Your task to perform on an android device: open sync settings in chrome Image 0: 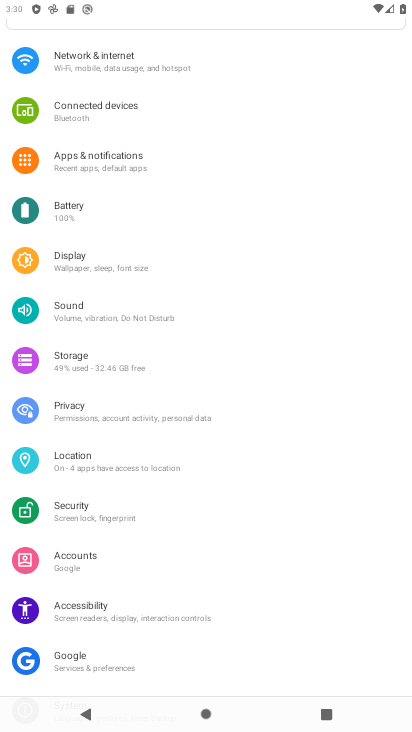
Step 0: press home button
Your task to perform on an android device: open sync settings in chrome Image 1: 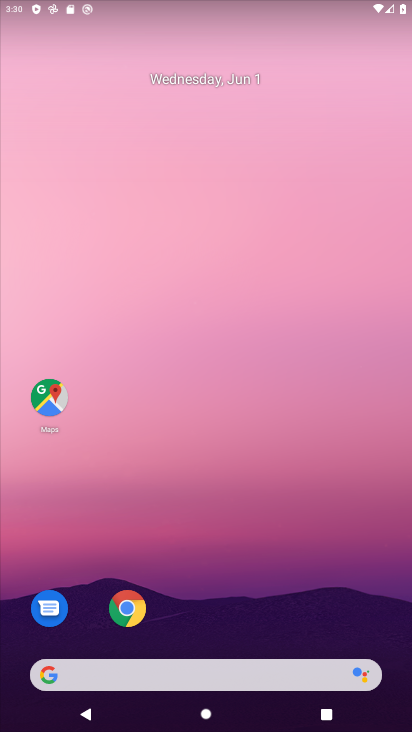
Step 1: click (126, 617)
Your task to perform on an android device: open sync settings in chrome Image 2: 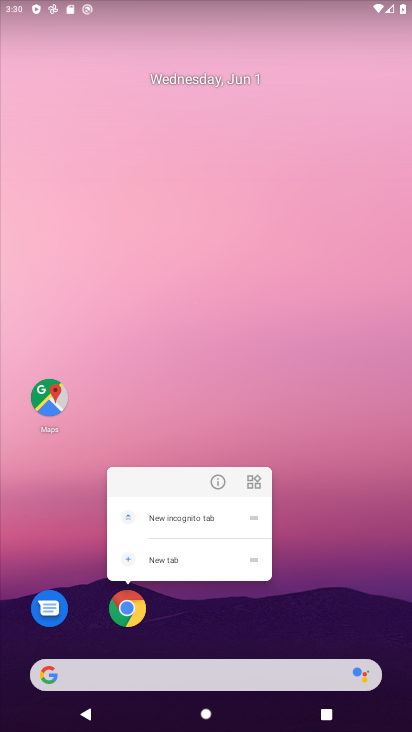
Step 2: click (123, 628)
Your task to perform on an android device: open sync settings in chrome Image 3: 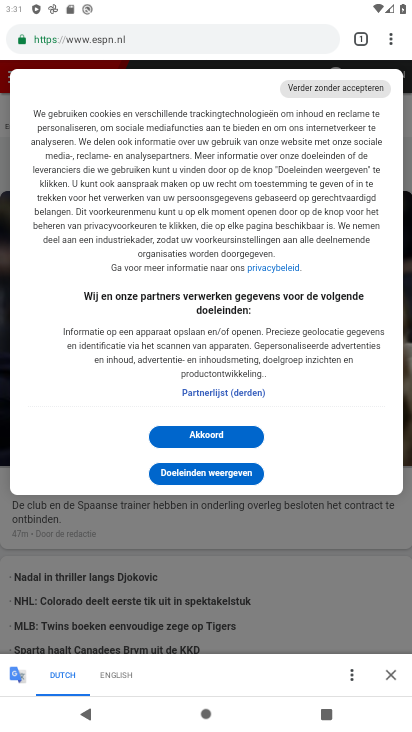
Step 3: drag from (383, 34) to (312, 472)
Your task to perform on an android device: open sync settings in chrome Image 4: 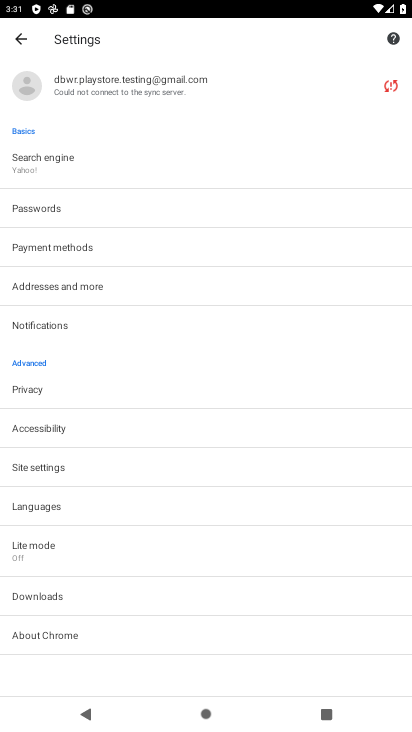
Step 4: click (120, 86)
Your task to perform on an android device: open sync settings in chrome Image 5: 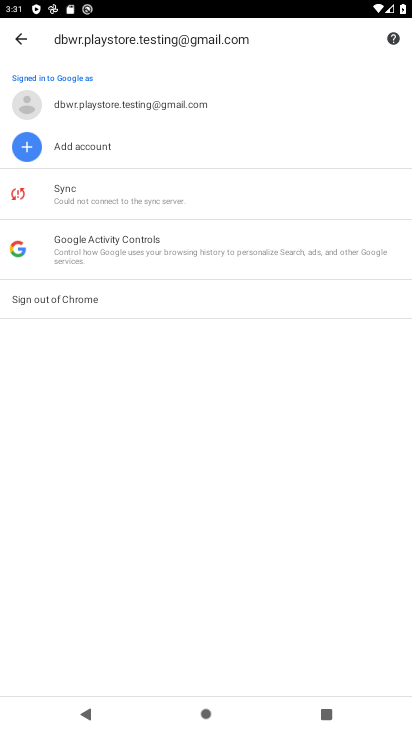
Step 5: task complete